Your task to perform on an android device: Open eBay Image 0: 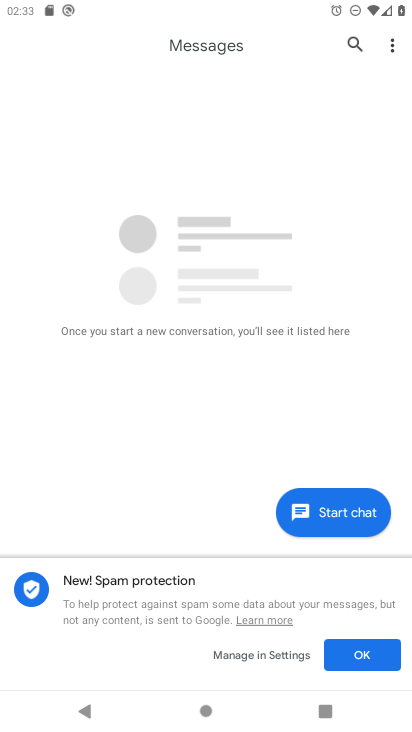
Step 0: press home button
Your task to perform on an android device: Open eBay Image 1: 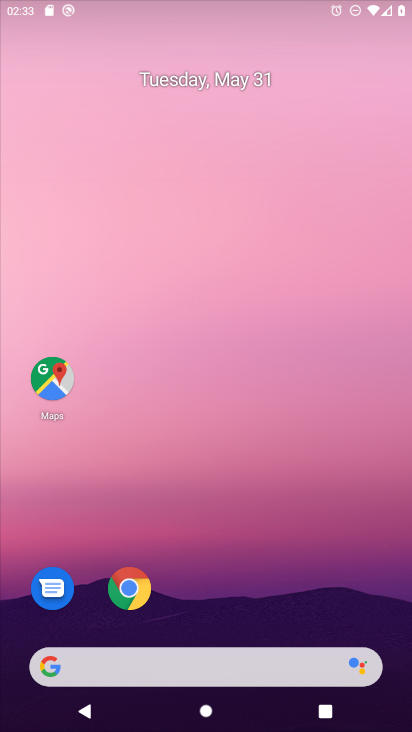
Step 1: drag from (211, 527) to (222, 0)
Your task to perform on an android device: Open eBay Image 2: 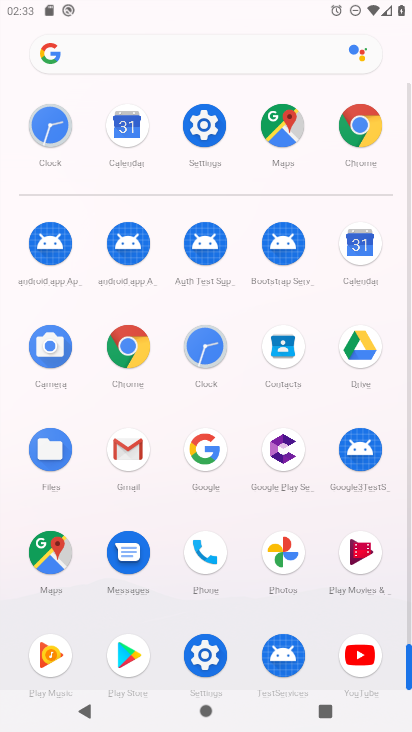
Step 2: click (118, 352)
Your task to perform on an android device: Open eBay Image 3: 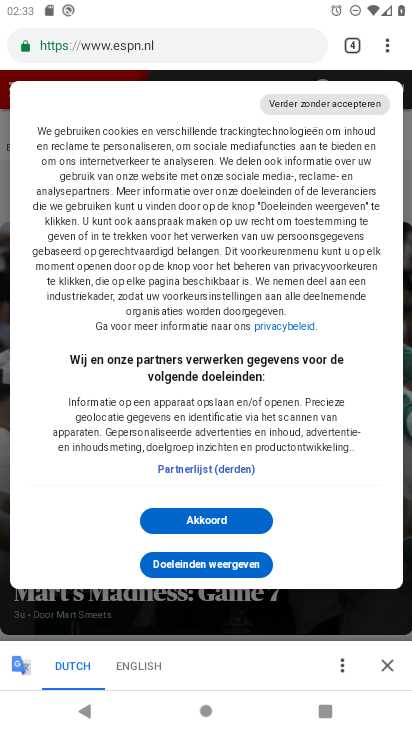
Step 3: click (196, 37)
Your task to perform on an android device: Open eBay Image 4: 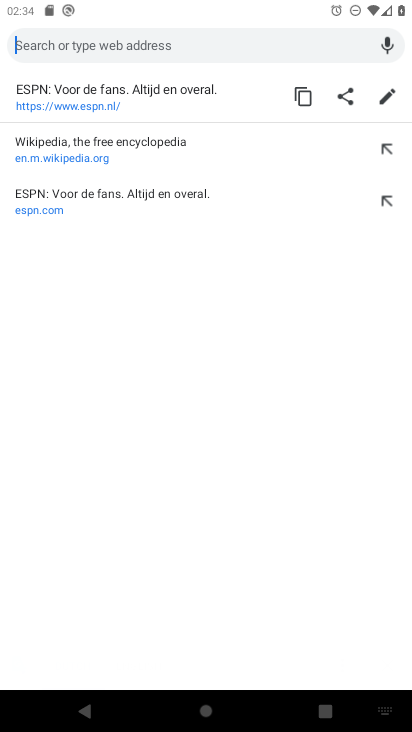
Step 4: type "ebay"
Your task to perform on an android device: Open eBay Image 5: 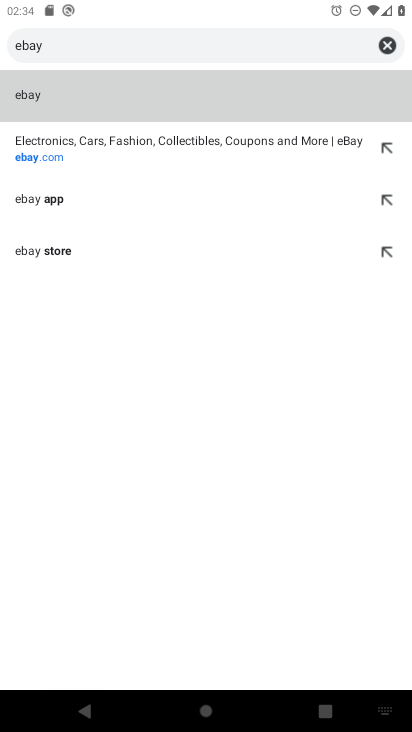
Step 5: click (166, 149)
Your task to perform on an android device: Open eBay Image 6: 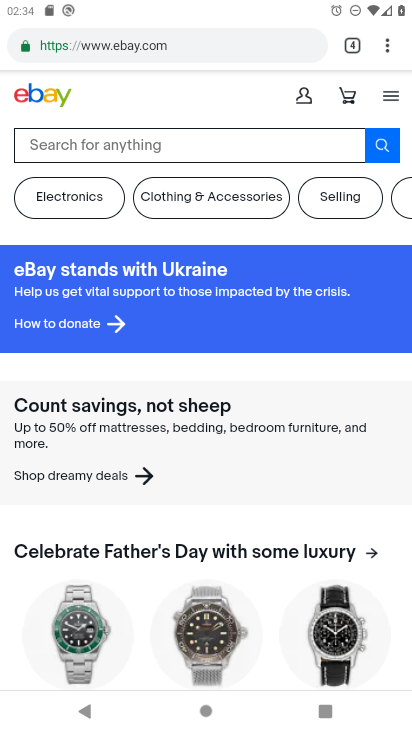
Step 6: task complete